Your task to perform on an android device: Show the shopping cart on costco.com. Search for lg ultragear on costco.com, select the first entry, add it to the cart, then select checkout. Image 0: 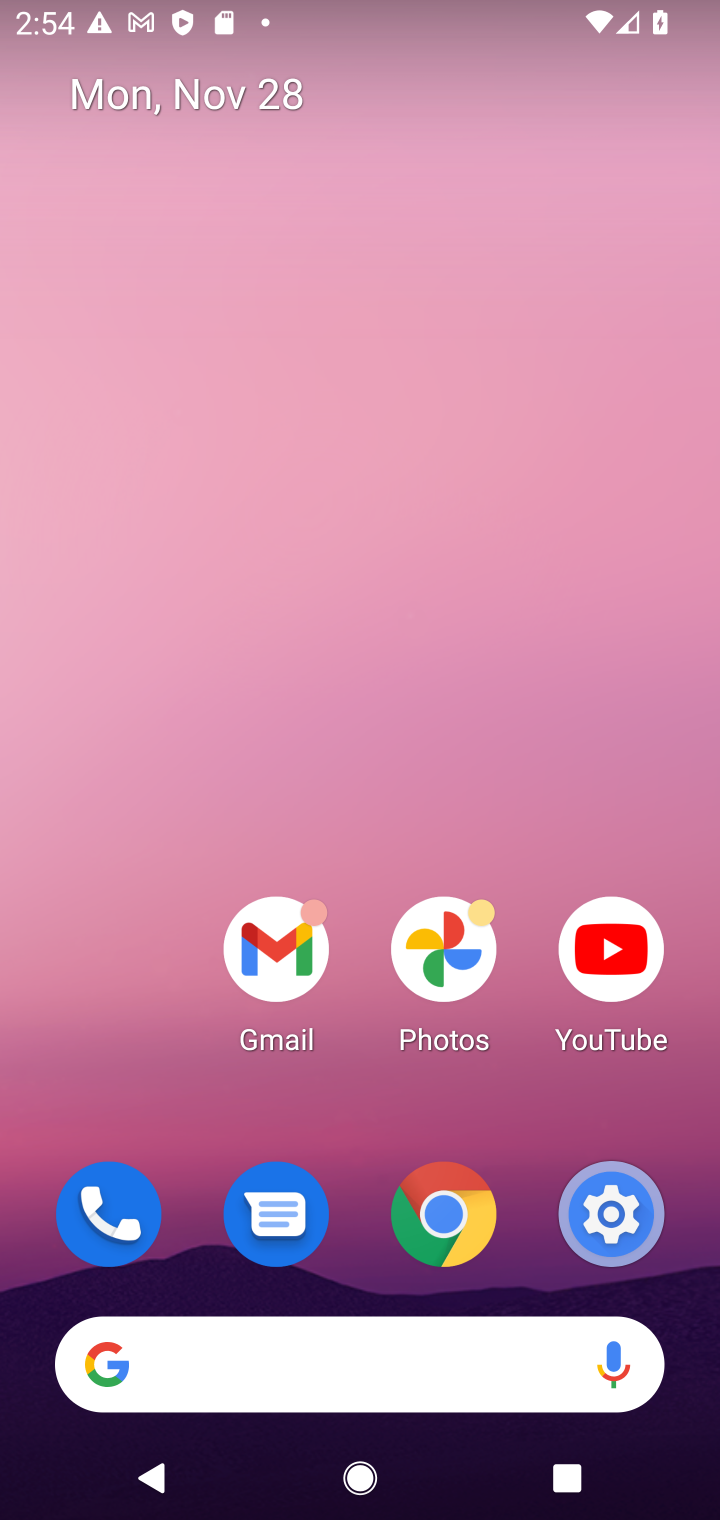
Step 0: click (390, 1348)
Your task to perform on an android device: Show the shopping cart on costco.com. Search for lg ultragear on costco.com, select the first entry, add it to the cart, then select checkout. Image 1: 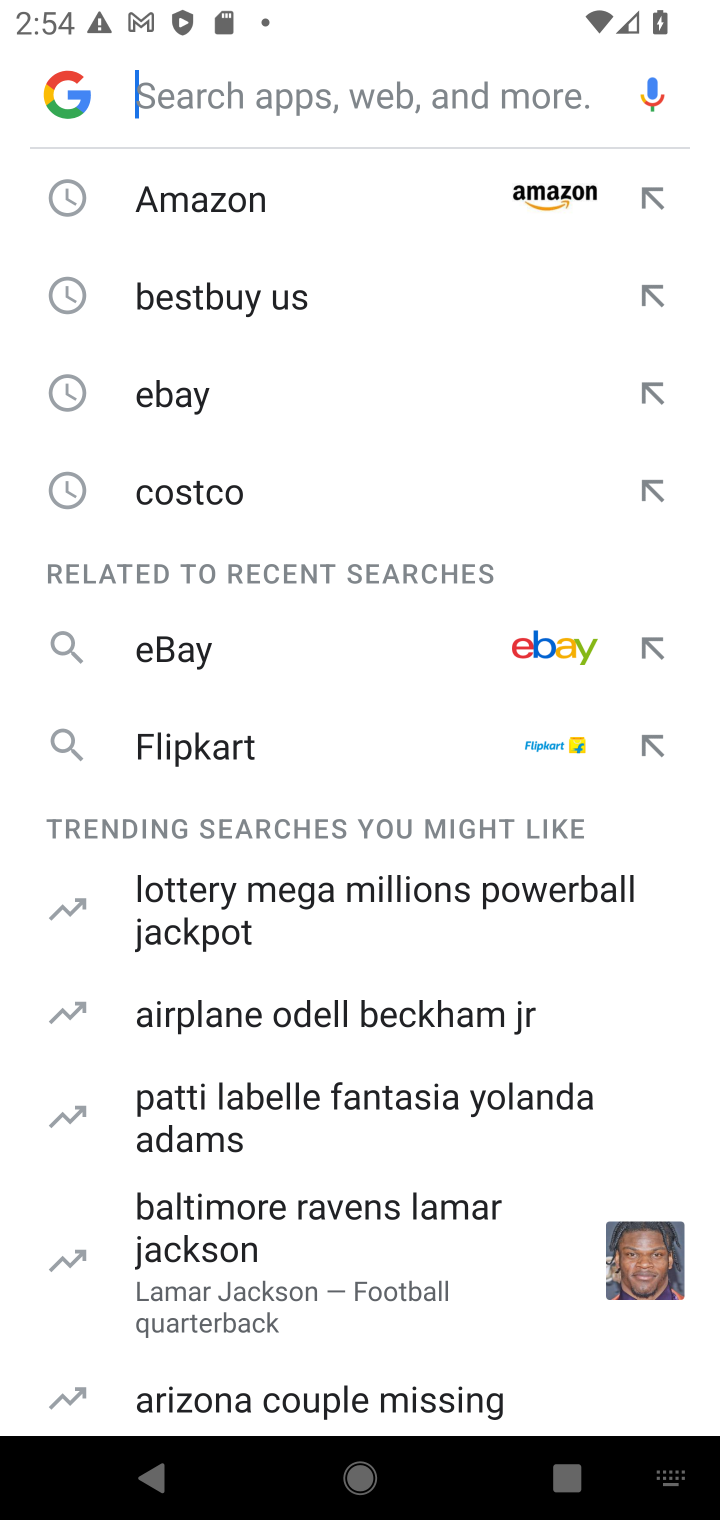
Step 1: type "costco"
Your task to perform on an android device: Show the shopping cart on costco.com. Search for lg ultragear on costco.com, select the first entry, add it to the cart, then select checkout. Image 2: 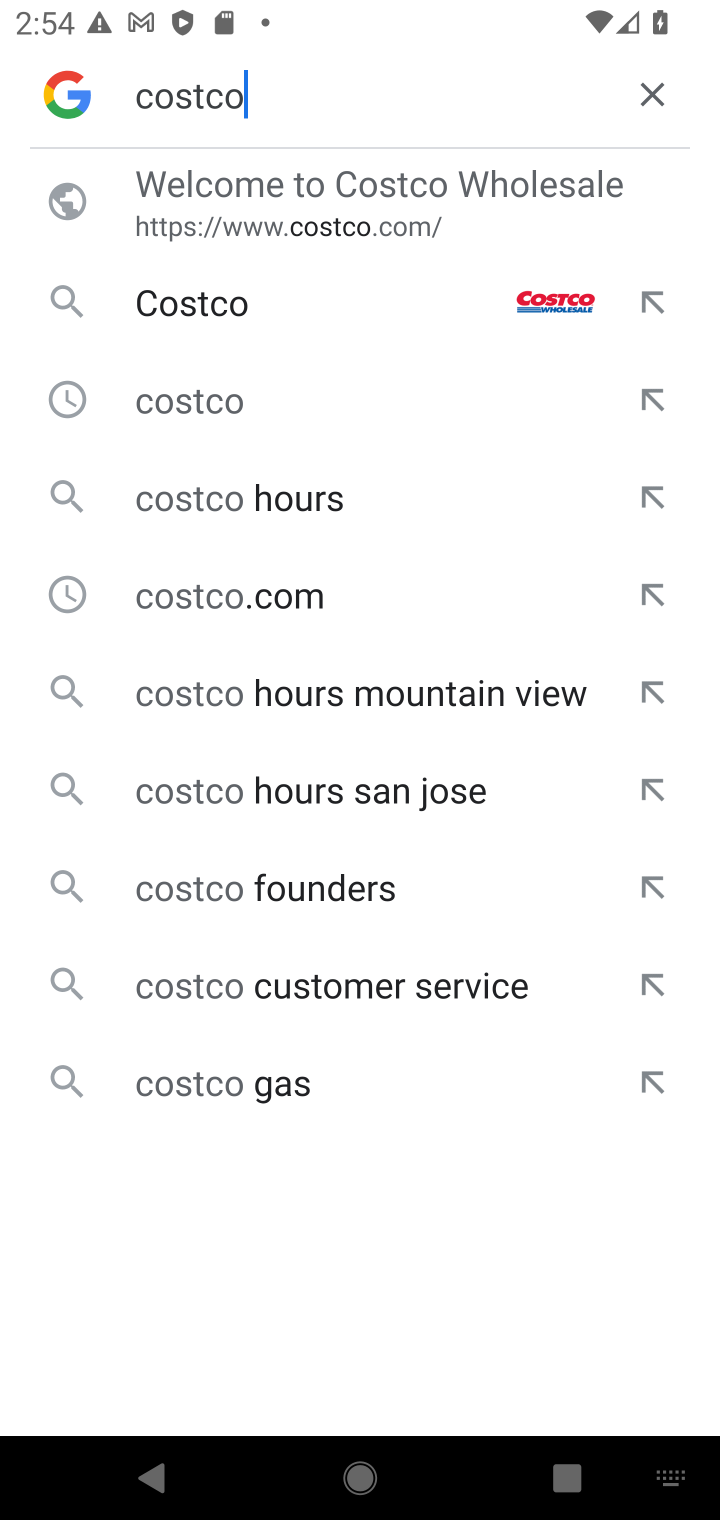
Step 2: click (236, 250)
Your task to perform on an android device: Show the shopping cart on costco.com. Search for lg ultragear on costco.com, select the first entry, add it to the cart, then select checkout. Image 3: 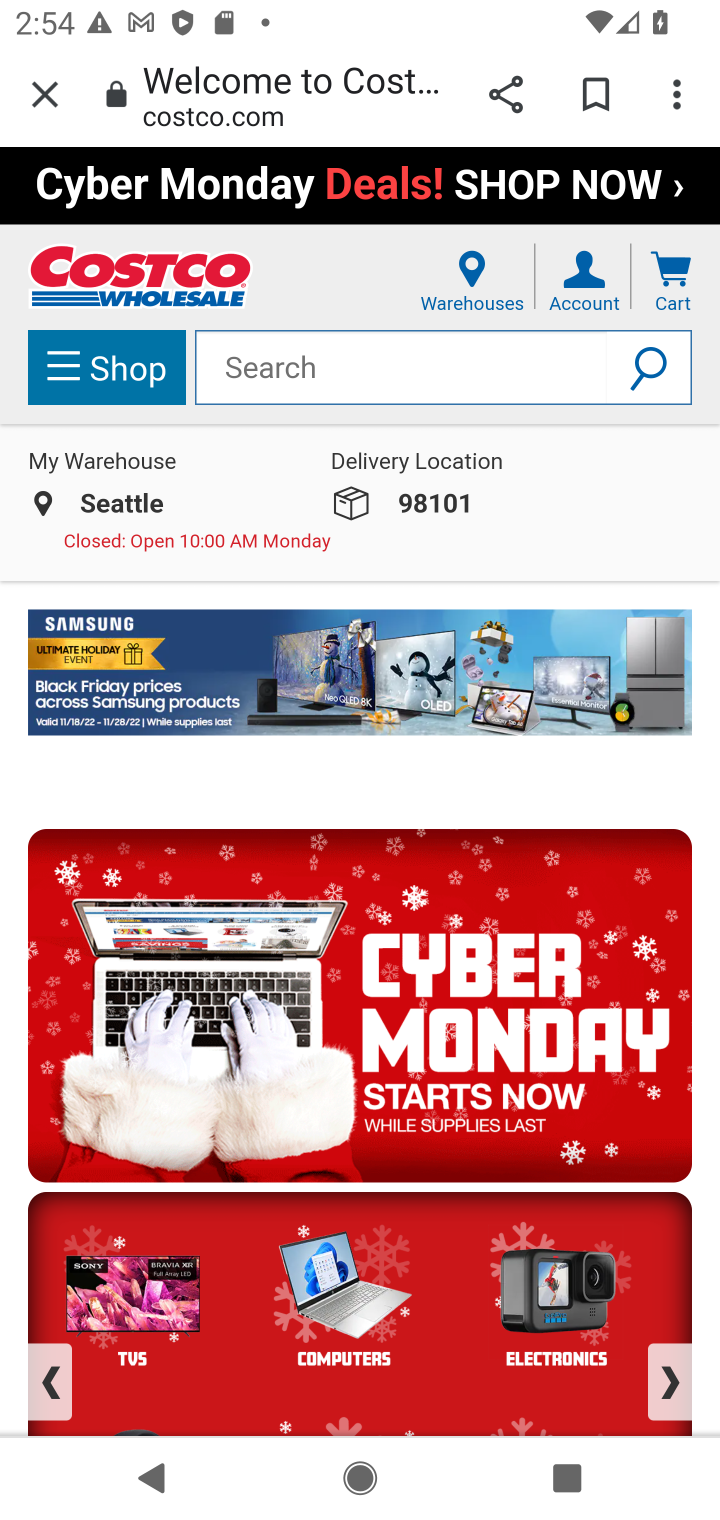
Step 3: task complete